Your task to perform on an android device: Go to battery settings Image 0: 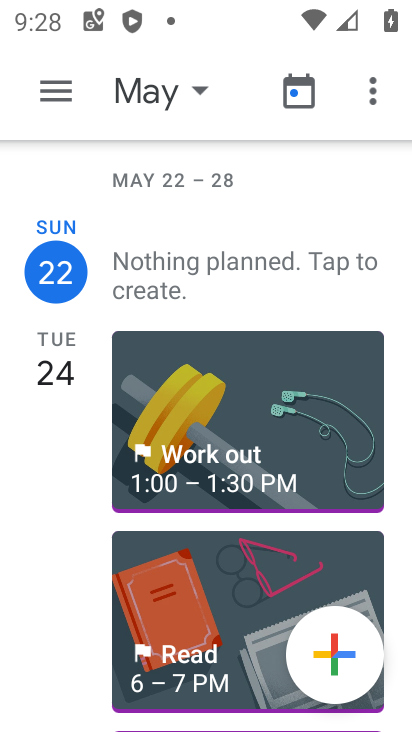
Step 0: press home button
Your task to perform on an android device: Go to battery settings Image 1: 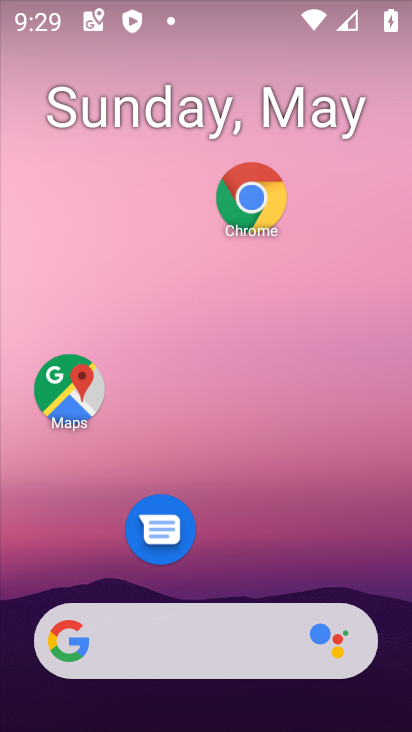
Step 1: drag from (285, 561) to (287, 66)
Your task to perform on an android device: Go to battery settings Image 2: 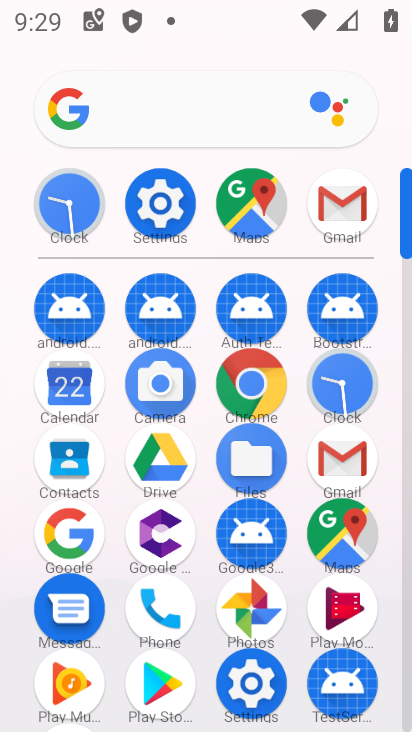
Step 2: click (174, 195)
Your task to perform on an android device: Go to battery settings Image 3: 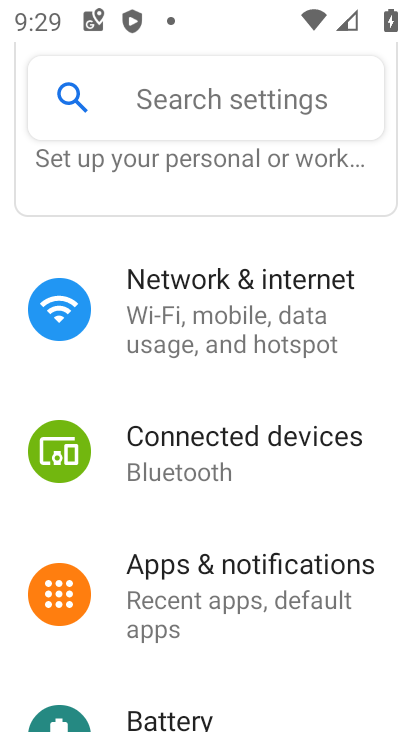
Step 3: drag from (271, 639) to (289, 345)
Your task to perform on an android device: Go to battery settings Image 4: 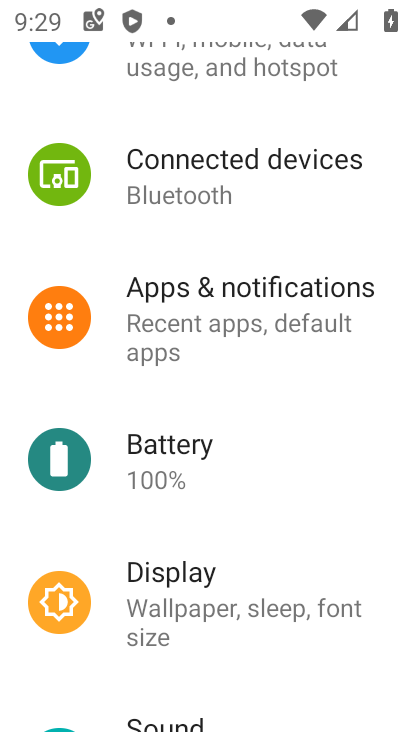
Step 4: click (222, 475)
Your task to perform on an android device: Go to battery settings Image 5: 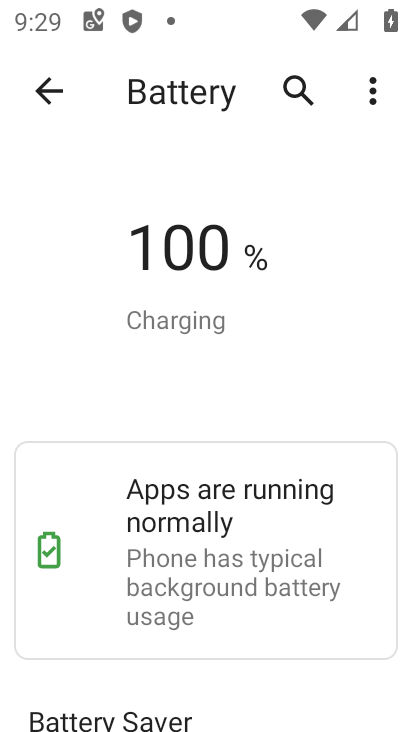
Step 5: task complete